Your task to perform on an android device: Go to CNN.com Image 0: 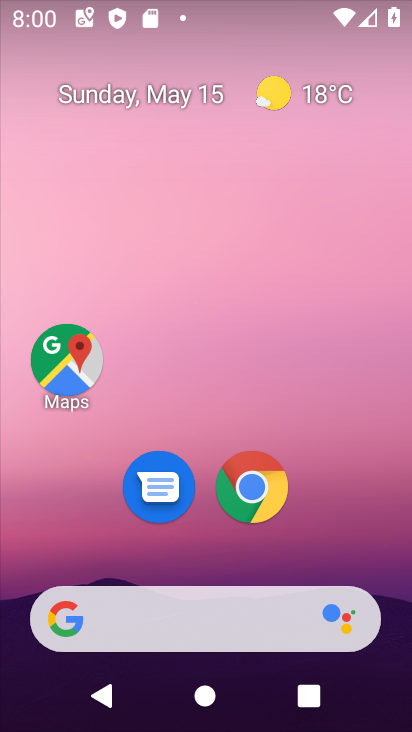
Step 0: click (248, 491)
Your task to perform on an android device: Go to CNN.com Image 1: 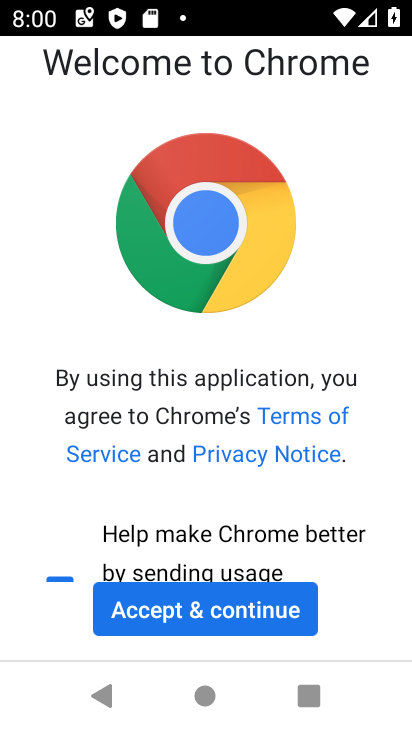
Step 1: click (216, 616)
Your task to perform on an android device: Go to CNN.com Image 2: 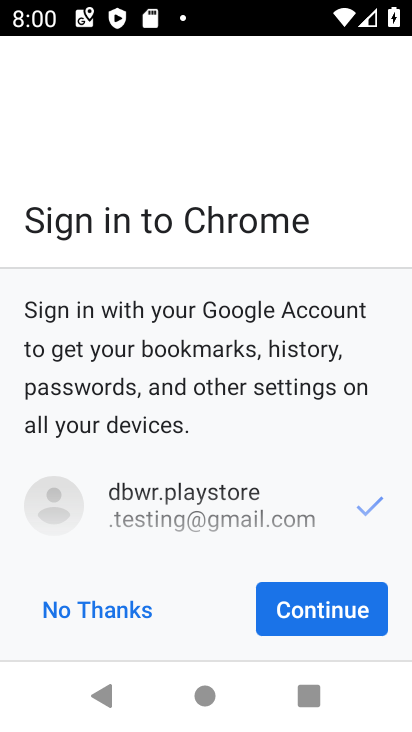
Step 2: click (323, 605)
Your task to perform on an android device: Go to CNN.com Image 3: 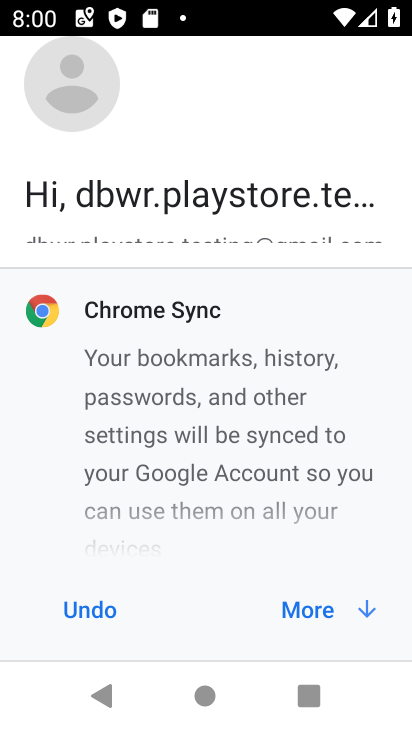
Step 3: click (304, 609)
Your task to perform on an android device: Go to CNN.com Image 4: 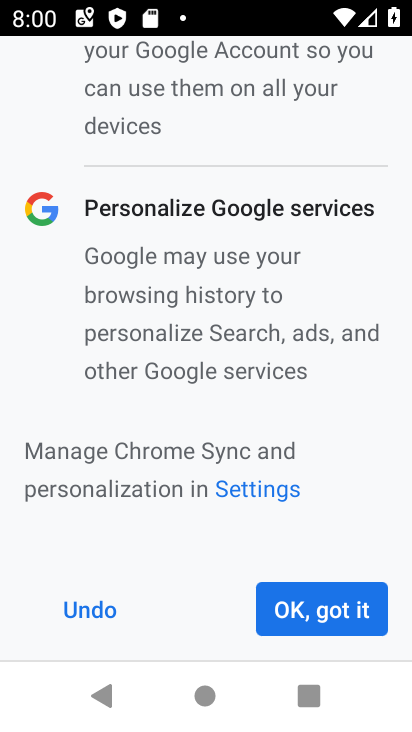
Step 4: click (304, 609)
Your task to perform on an android device: Go to CNN.com Image 5: 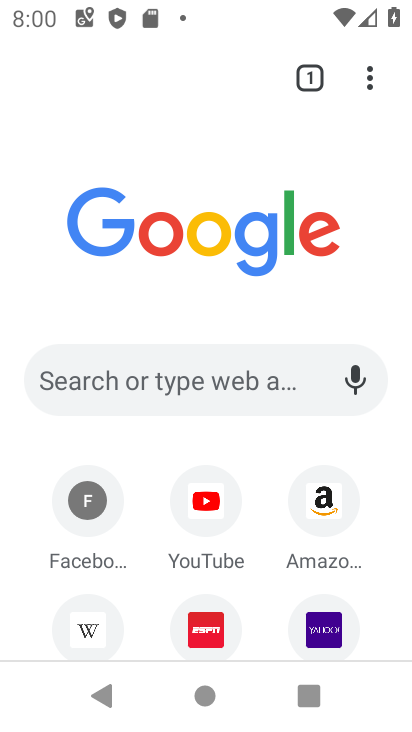
Step 5: click (181, 378)
Your task to perform on an android device: Go to CNN.com Image 6: 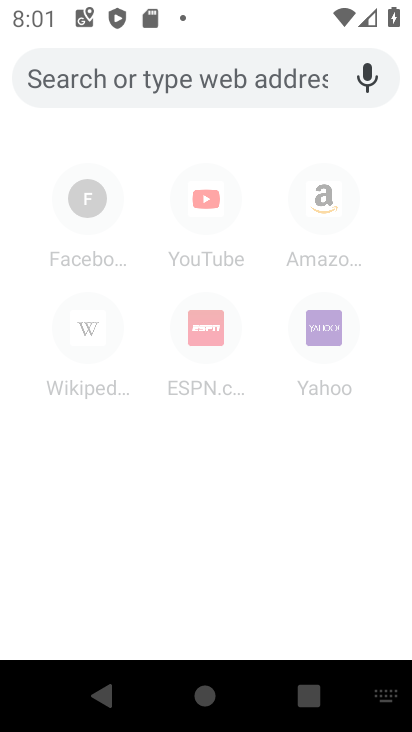
Step 6: type "CNN.com"
Your task to perform on an android device: Go to CNN.com Image 7: 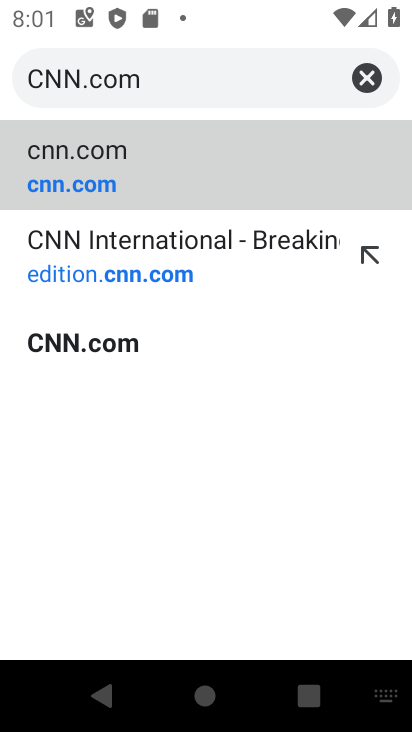
Step 7: click (81, 347)
Your task to perform on an android device: Go to CNN.com Image 8: 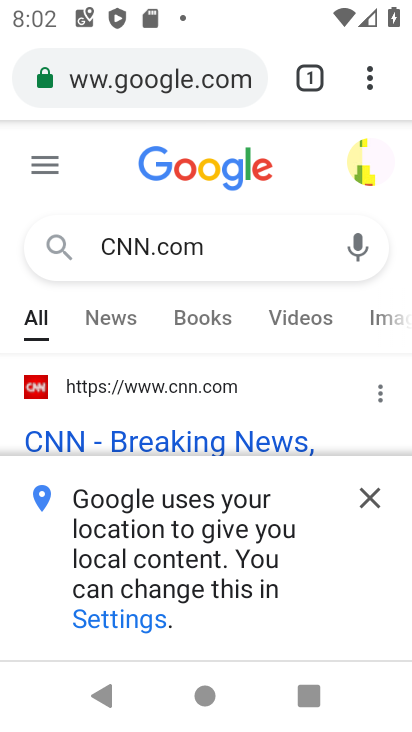
Step 8: task complete